Your task to perform on an android device: Open Chrome and go to settings Image 0: 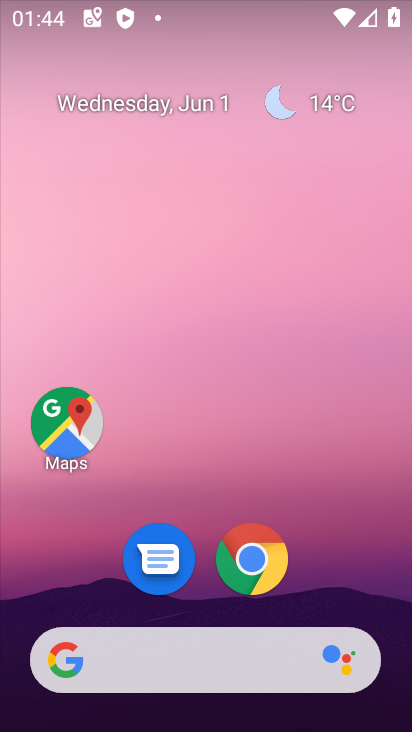
Step 0: click (249, 571)
Your task to perform on an android device: Open Chrome and go to settings Image 1: 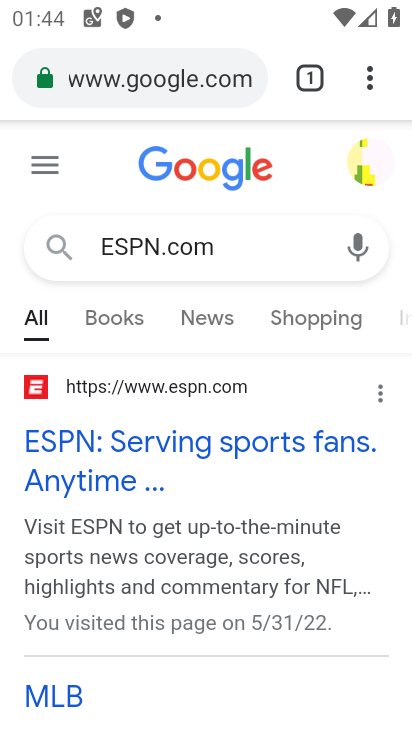
Step 1: click (362, 66)
Your task to perform on an android device: Open Chrome and go to settings Image 2: 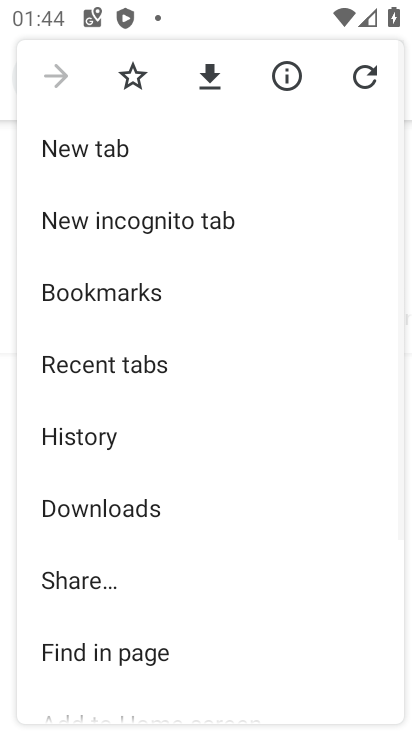
Step 2: drag from (241, 654) to (262, 314)
Your task to perform on an android device: Open Chrome and go to settings Image 3: 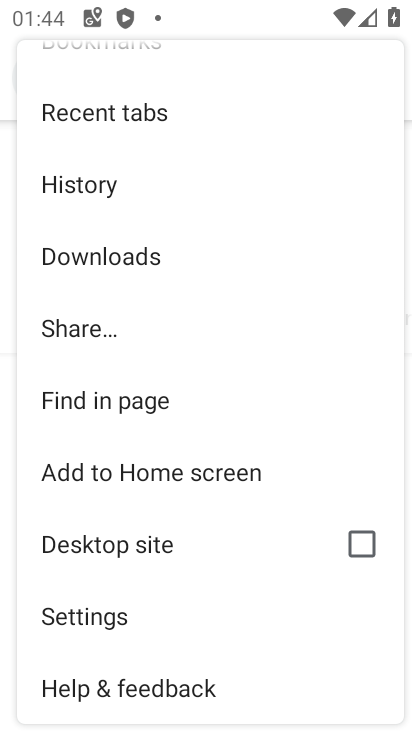
Step 3: click (96, 619)
Your task to perform on an android device: Open Chrome and go to settings Image 4: 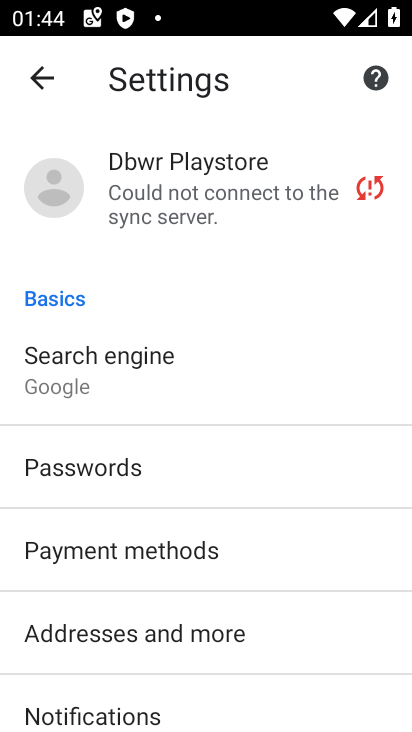
Step 4: task complete